Your task to perform on an android device: Open Google Maps and go to "Timeline" Image 0: 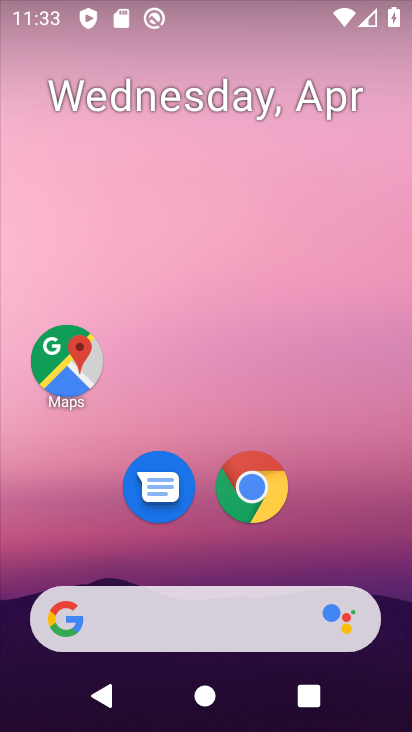
Step 0: click (62, 368)
Your task to perform on an android device: Open Google Maps and go to "Timeline" Image 1: 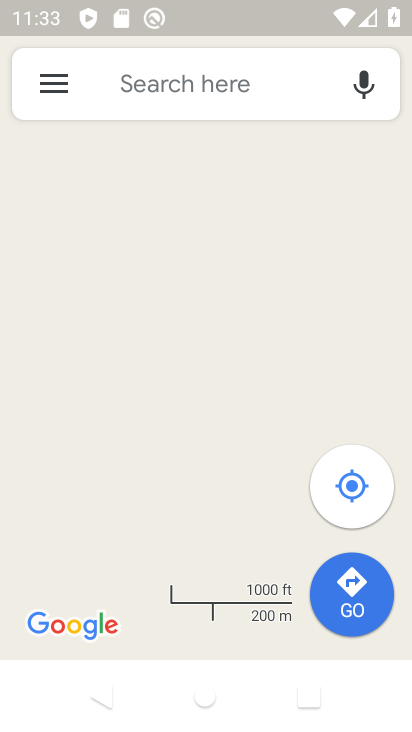
Step 1: click (56, 78)
Your task to perform on an android device: Open Google Maps and go to "Timeline" Image 2: 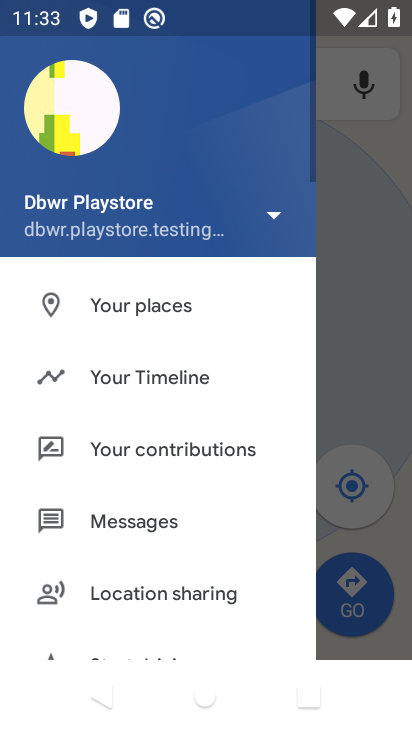
Step 2: click (85, 373)
Your task to perform on an android device: Open Google Maps and go to "Timeline" Image 3: 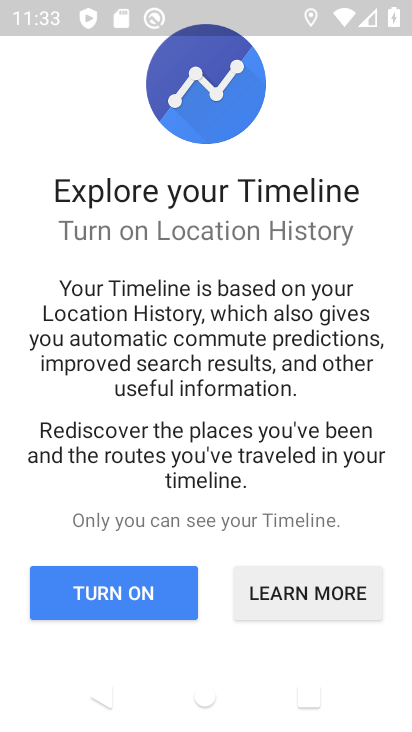
Step 3: drag from (276, 530) to (257, 389)
Your task to perform on an android device: Open Google Maps and go to "Timeline" Image 4: 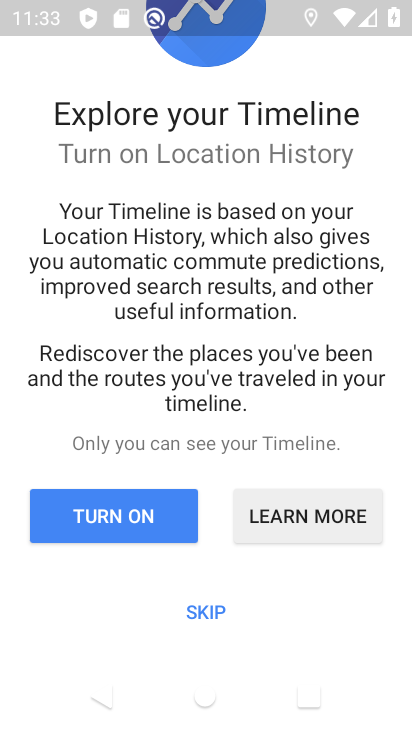
Step 4: click (202, 618)
Your task to perform on an android device: Open Google Maps and go to "Timeline" Image 5: 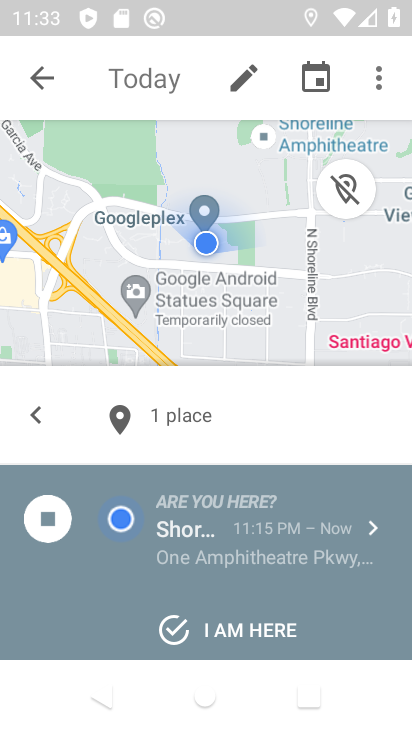
Step 5: task complete